Your task to perform on an android device: toggle pop-ups in chrome Image 0: 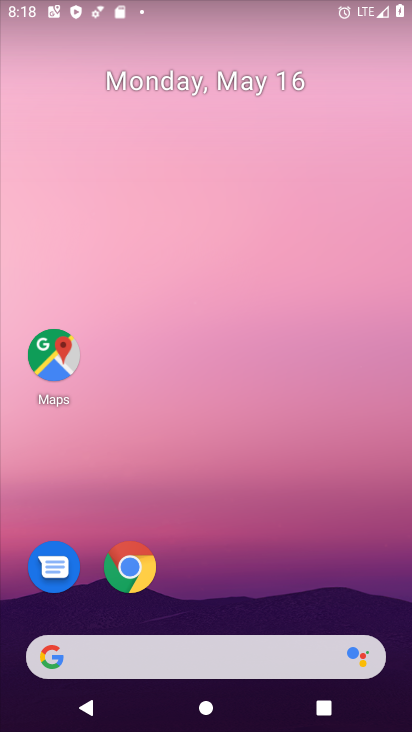
Step 0: click (138, 572)
Your task to perform on an android device: toggle pop-ups in chrome Image 1: 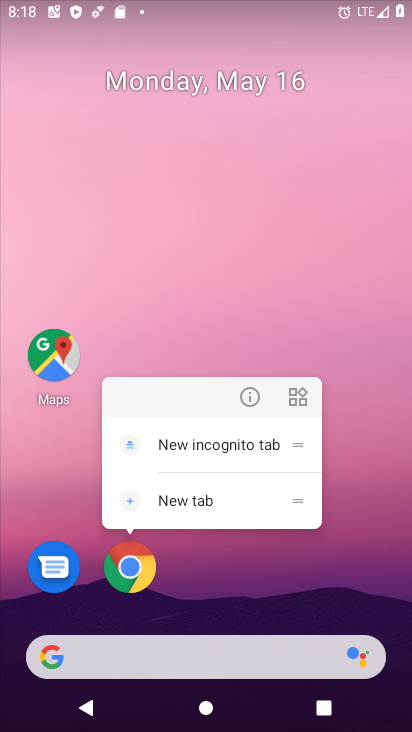
Step 1: click (135, 576)
Your task to perform on an android device: toggle pop-ups in chrome Image 2: 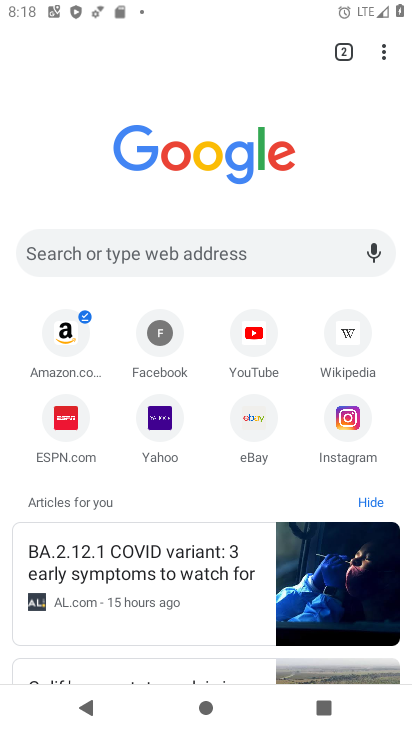
Step 2: click (123, 572)
Your task to perform on an android device: toggle pop-ups in chrome Image 3: 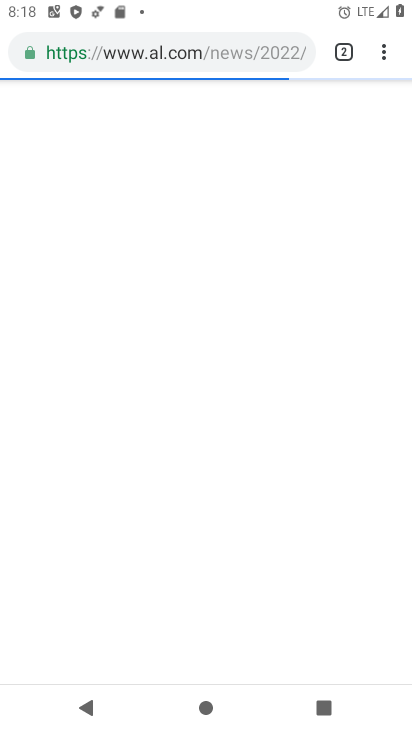
Step 3: click (380, 49)
Your task to perform on an android device: toggle pop-ups in chrome Image 4: 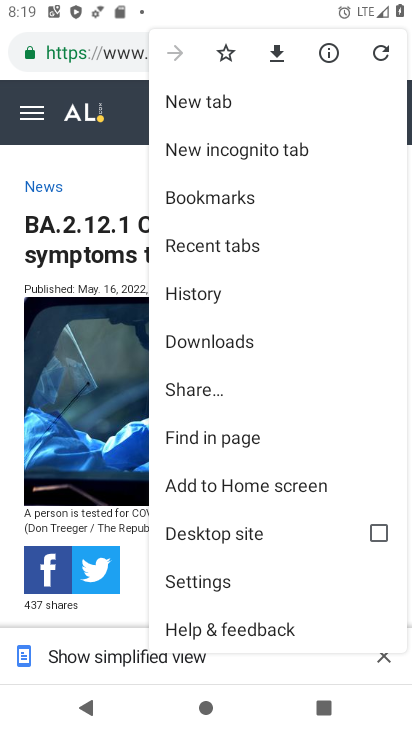
Step 4: click (180, 582)
Your task to perform on an android device: toggle pop-ups in chrome Image 5: 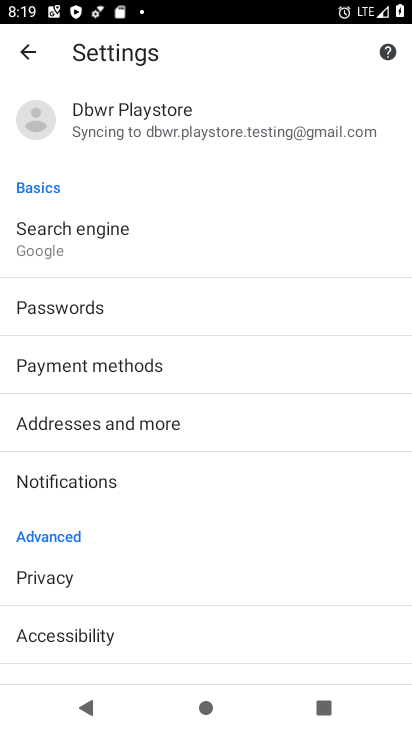
Step 5: drag from (118, 254) to (116, 216)
Your task to perform on an android device: toggle pop-ups in chrome Image 6: 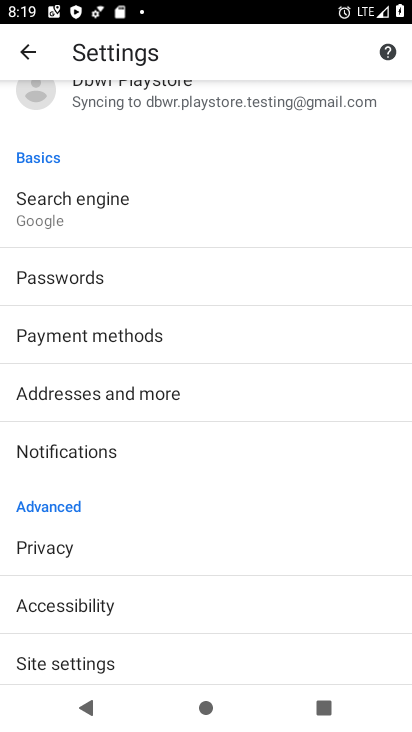
Step 6: click (71, 663)
Your task to perform on an android device: toggle pop-ups in chrome Image 7: 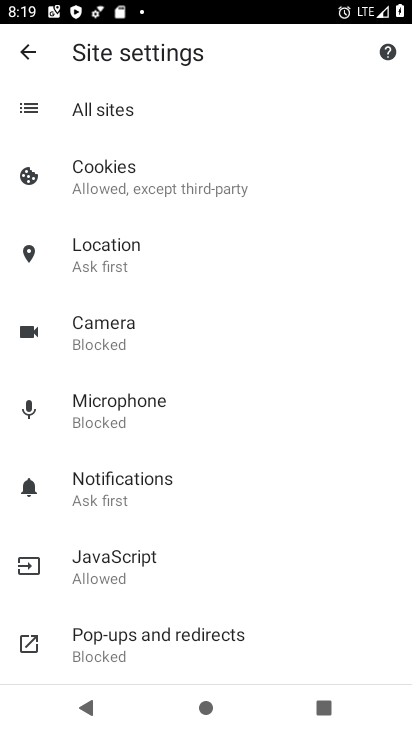
Step 7: drag from (62, 607) to (71, 267)
Your task to perform on an android device: toggle pop-ups in chrome Image 8: 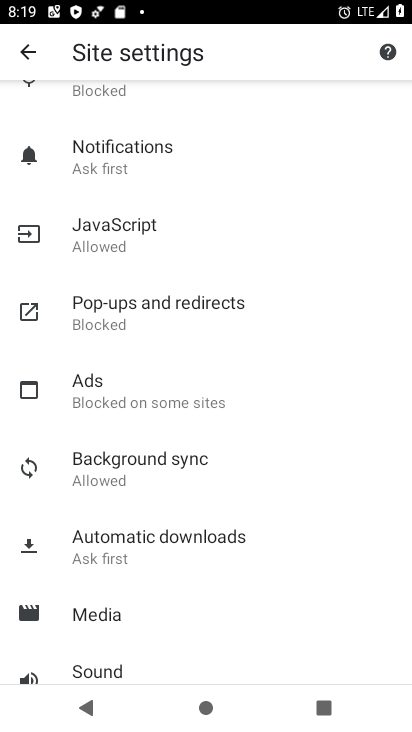
Step 8: click (94, 330)
Your task to perform on an android device: toggle pop-ups in chrome Image 9: 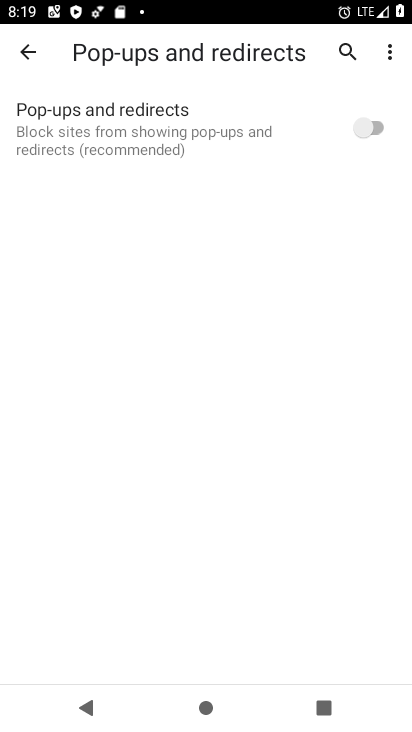
Step 9: click (374, 124)
Your task to perform on an android device: toggle pop-ups in chrome Image 10: 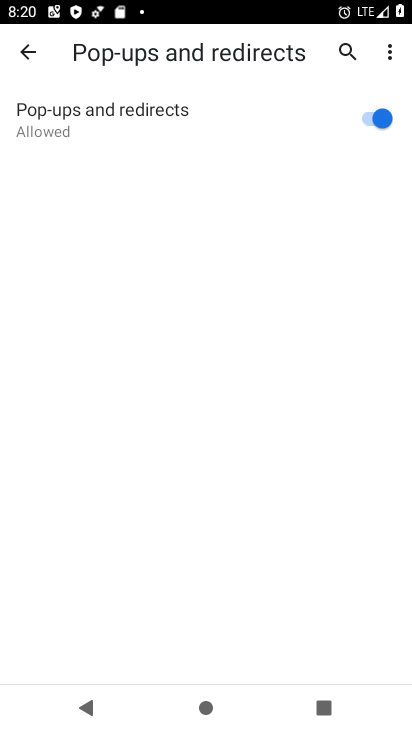
Step 10: task complete